Your task to perform on an android device: change alarm snooze length Image 0: 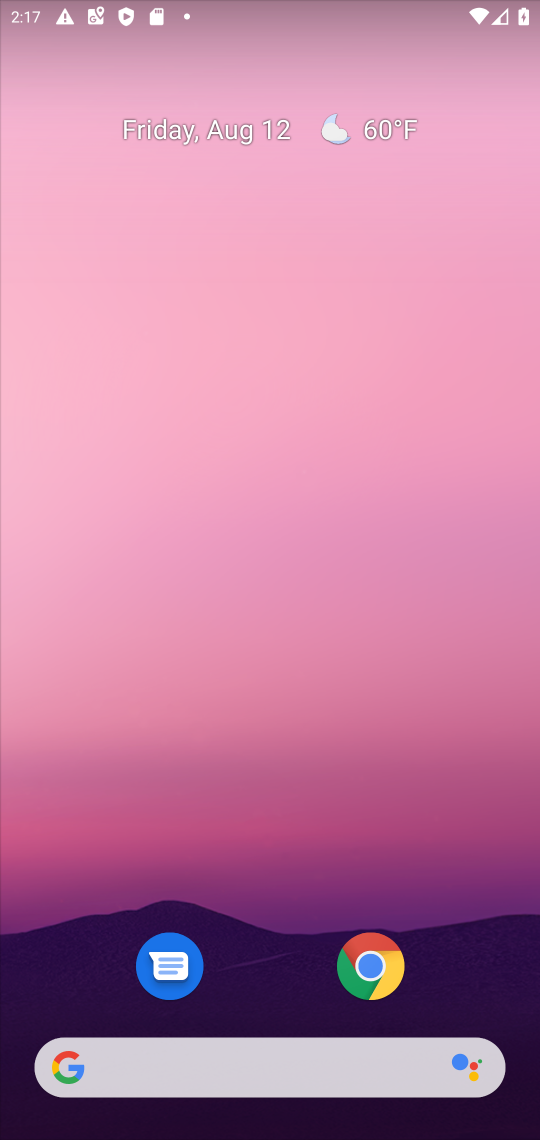
Step 0: drag from (274, 942) to (362, 632)
Your task to perform on an android device: change alarm snooze length Image 1: 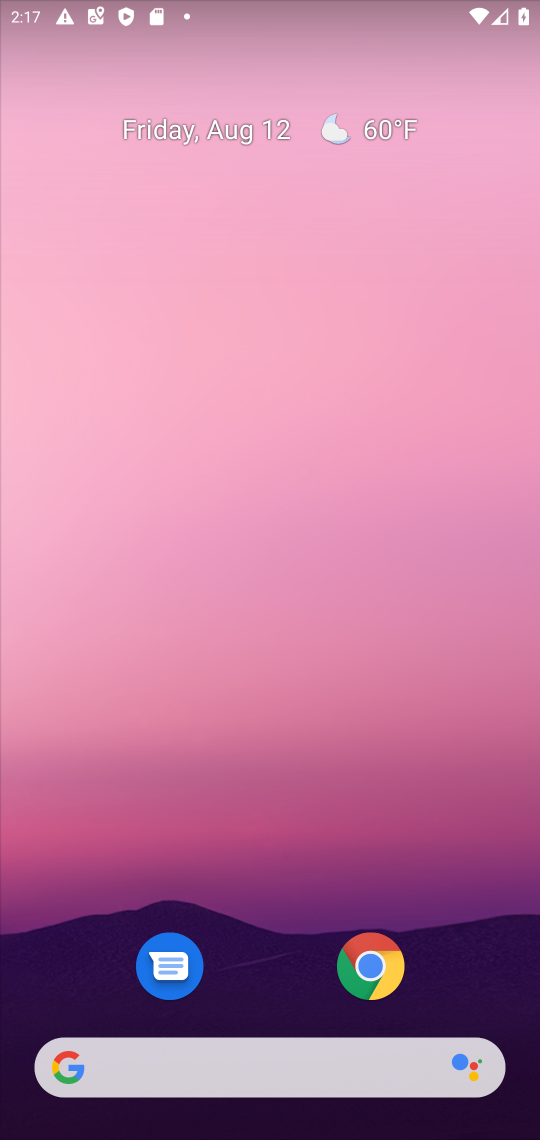
Step 1: drag from (238, 899) to (265, 163)
Your task to perform on an android device: change alarm snooze length Image 2: 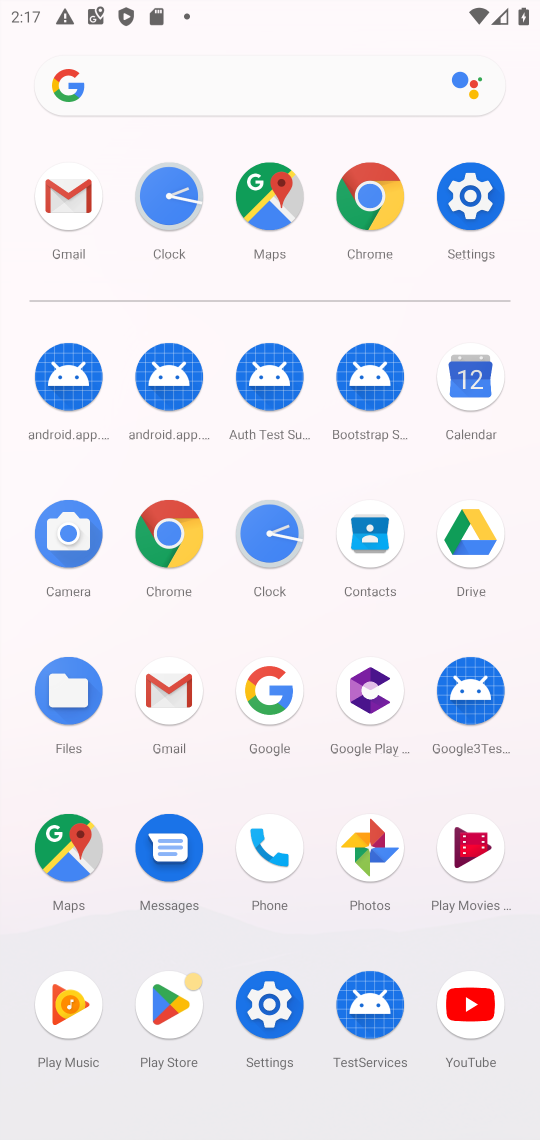
Step 2: click (275, 527)
Your task to perform on an android device: change alarm snooze length Image 3: 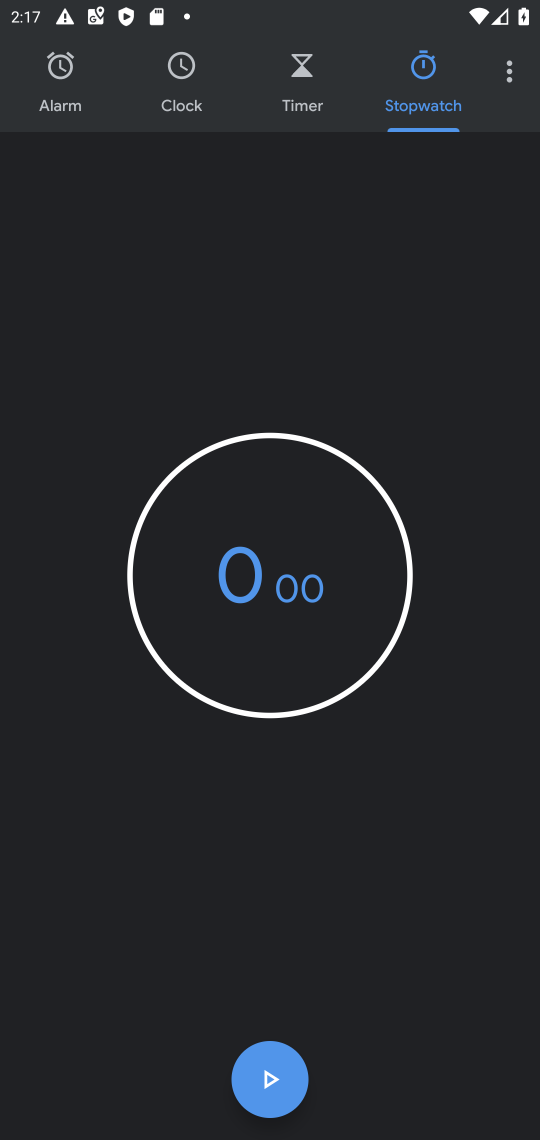
Step 3: click (521, 57)
Your task to perform on an android device: change alarm snooze length Image 4: 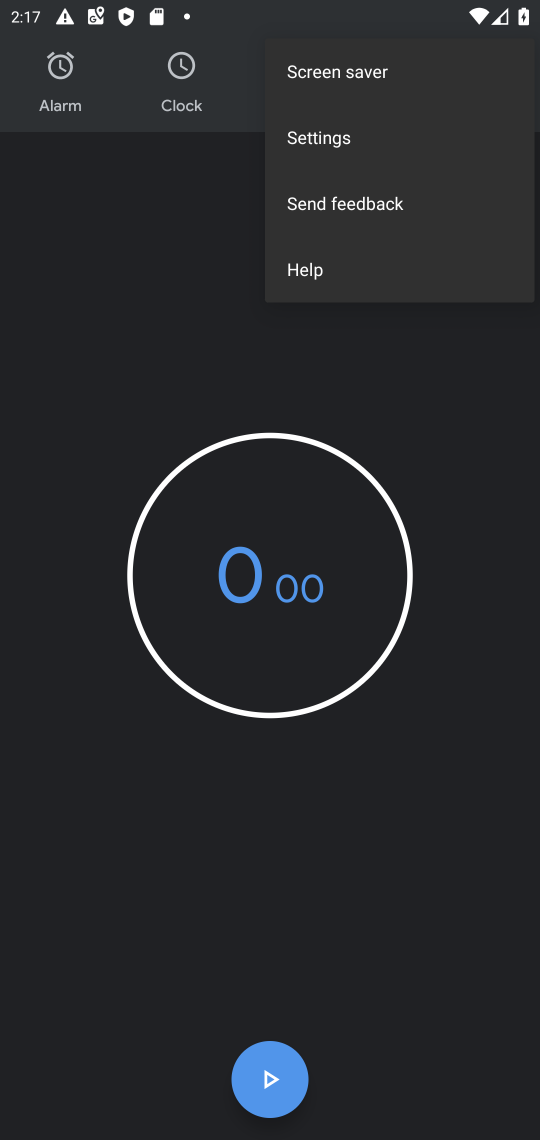
Step 4: click (328, 145)
Your task to perform on an android device: change alarm snooze length Image 5: 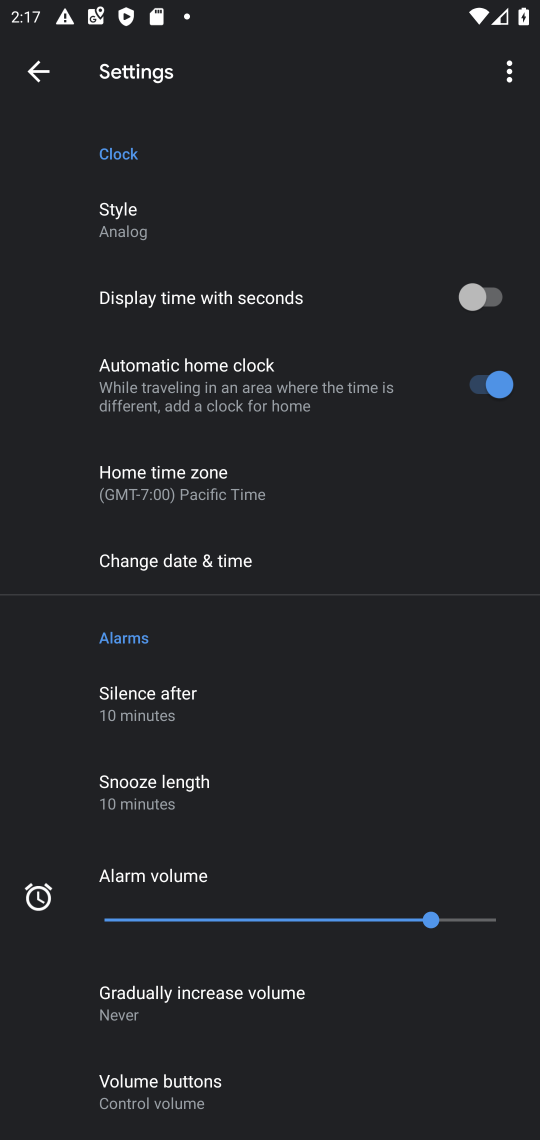
Step 5: click (200, 788)
Your task to perform on an android device: change alarm snooze length Image 6: 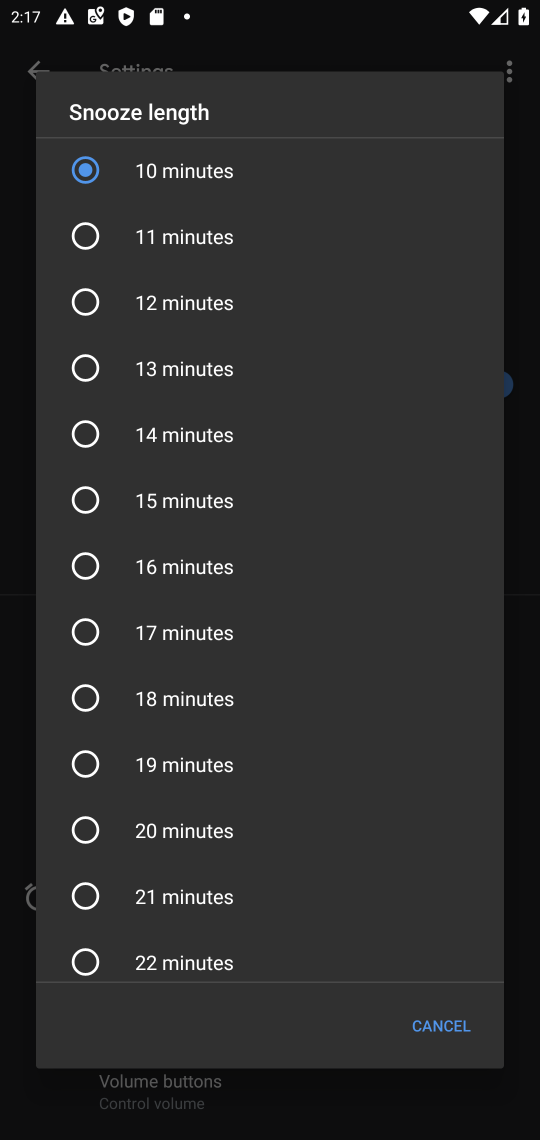
Step 6: click (168, 242)
Your task to perform on an android device: change alarm snooze length Image 7: 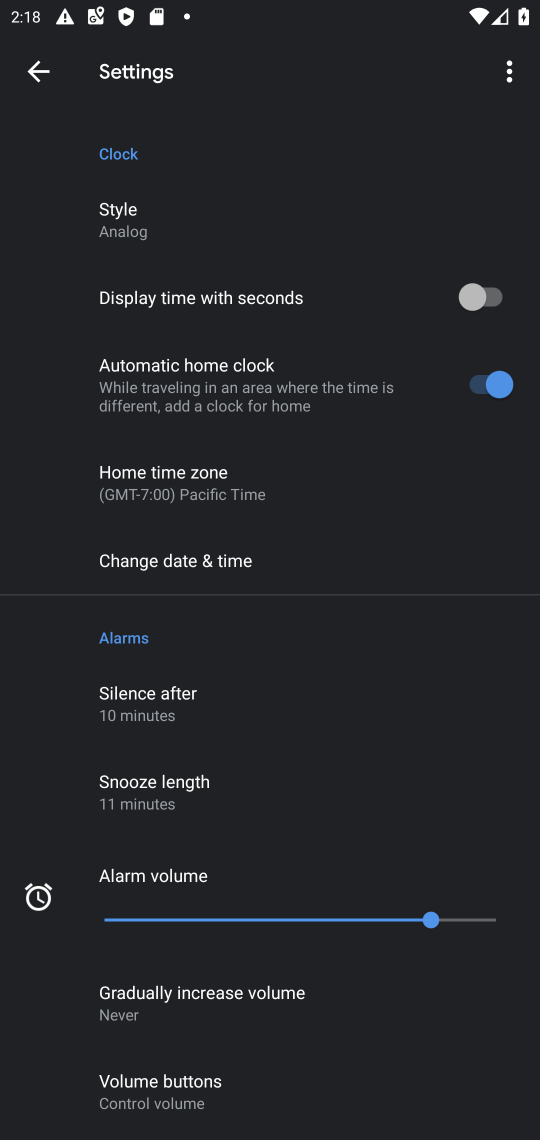
Step 7: click (169, 779)
Your task to perform on an android device: change alarm snooze length Image 8: 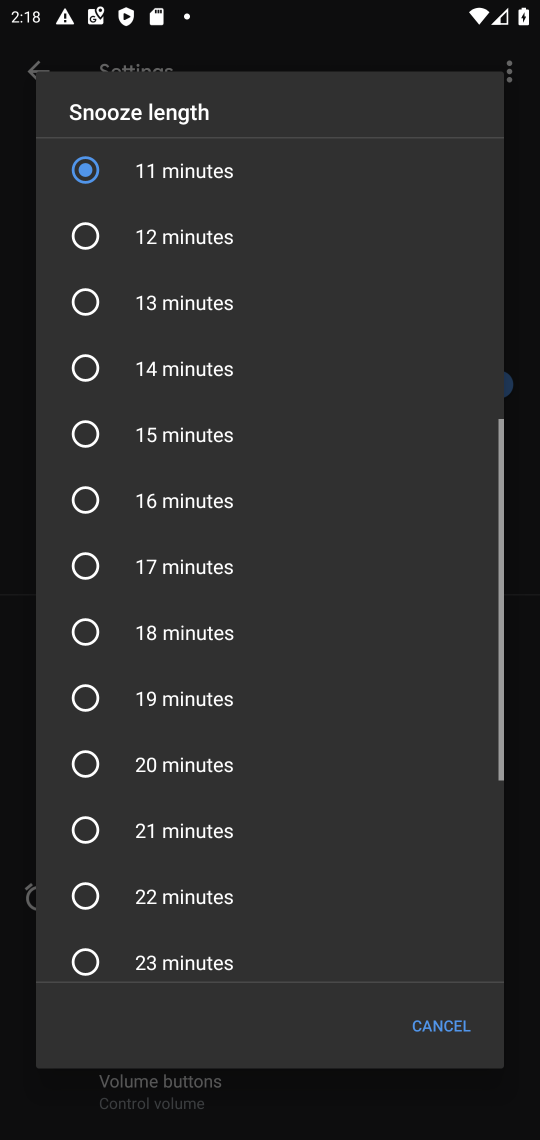
Step 8: click (134, 234)
Your task to perform on an android device: change alarm snooze length Image 9: 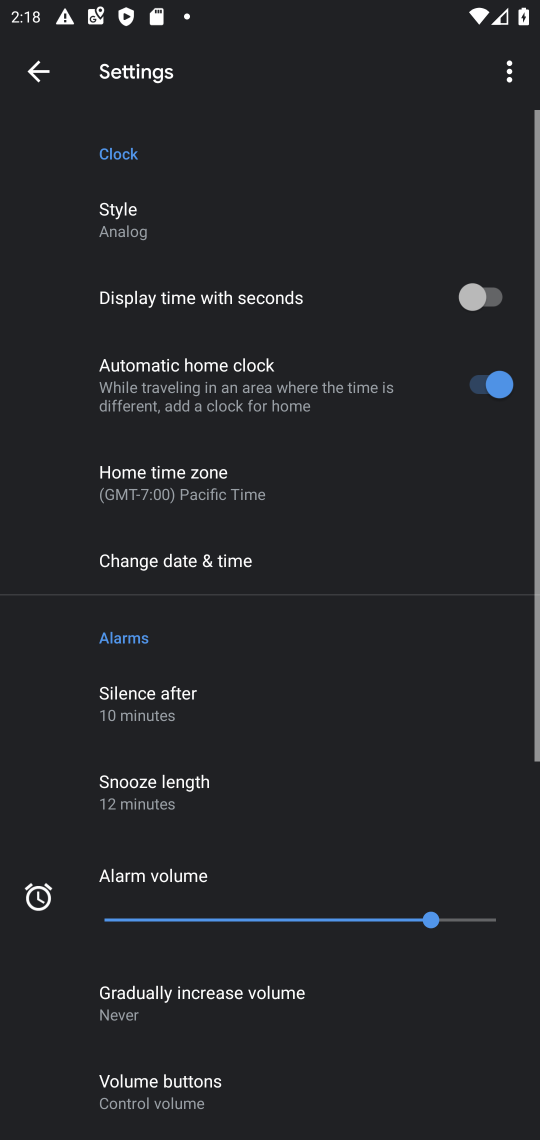
Step 9: task complete